Your task to perform on an android device: open a new tab in the chrome app Image 0: 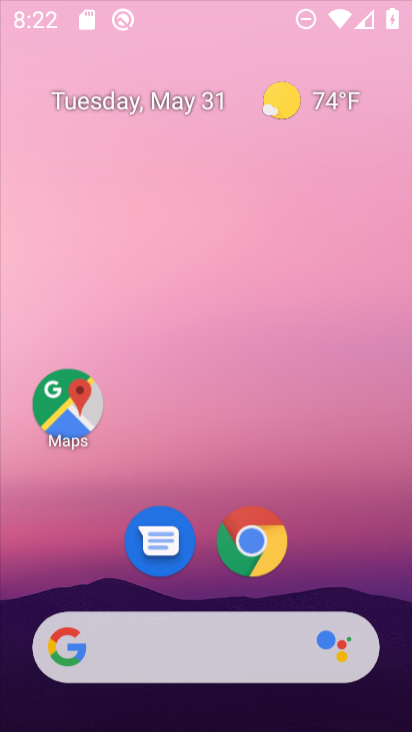
Step 0: drag from (311, 357) to (253, 19)
Your task to perform on an android device: open a new tab in the chrome app Image 1: 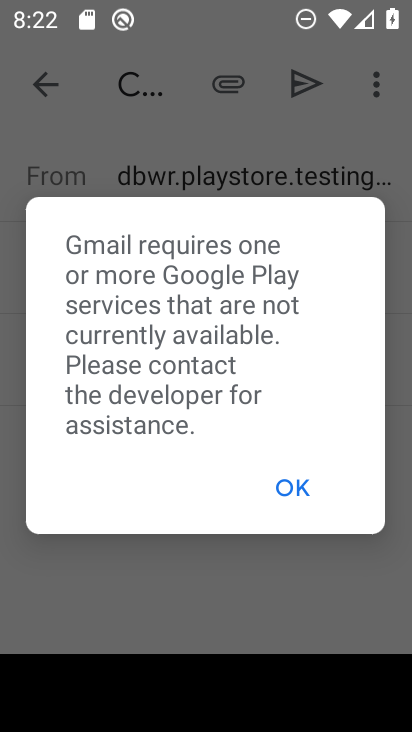
Step 1: press back button
Your task to perform on an android device: open a new tab in the chrome app Image 2: 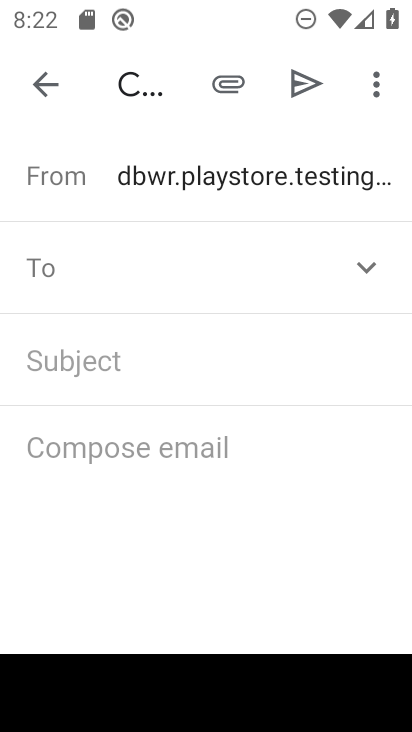
Step 2: press back button
Your task to perform on an android device: open a new tab in the chrome app Image 3: 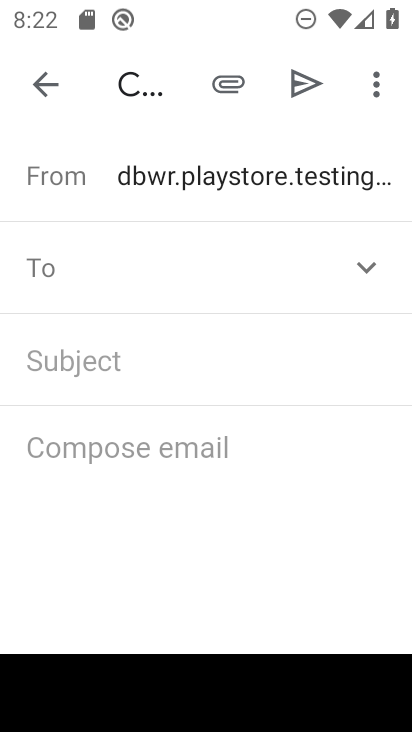
Step 3: press home button
Your task to perform on an android device: open a new tab in the chrome app Image 4: 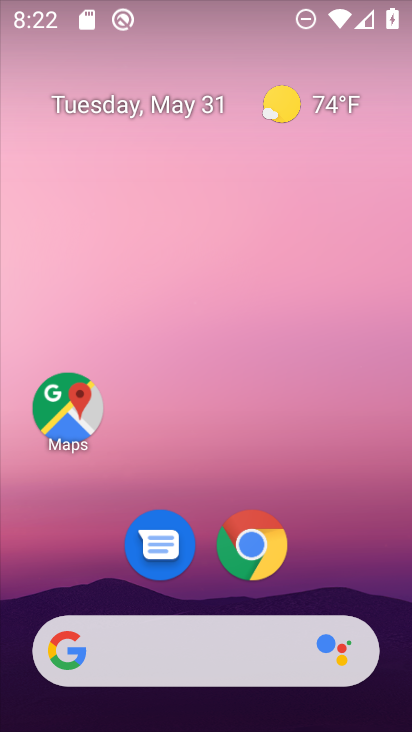
Step 4: drag from (344, 569) to (213, 47)
Your task to perform on an android device: open a new tab in the chrome app Image 5: 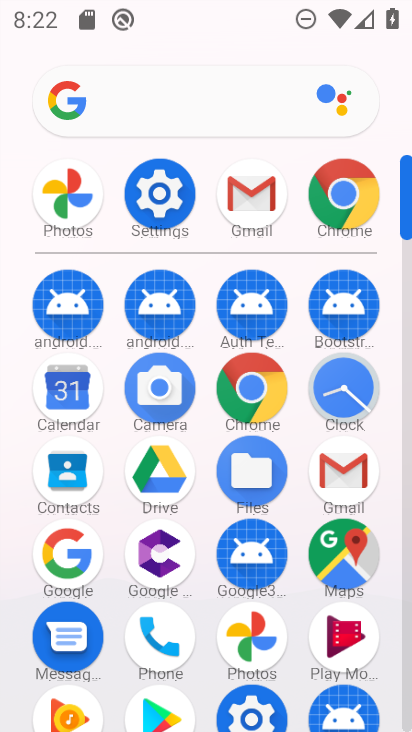
Step 5: click (346, 194)
Your task to perform on an android device: open a new tab in the chrome app Image 6: 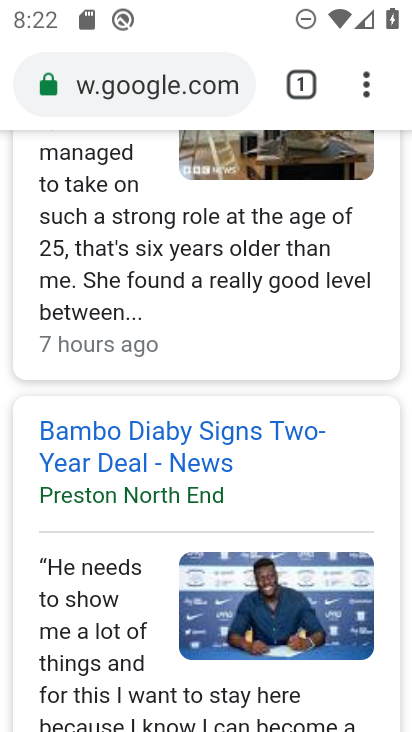
Step 6: task complete